Your task to perform on an android device: remove spam from my inbox in the gmail app Image 0: 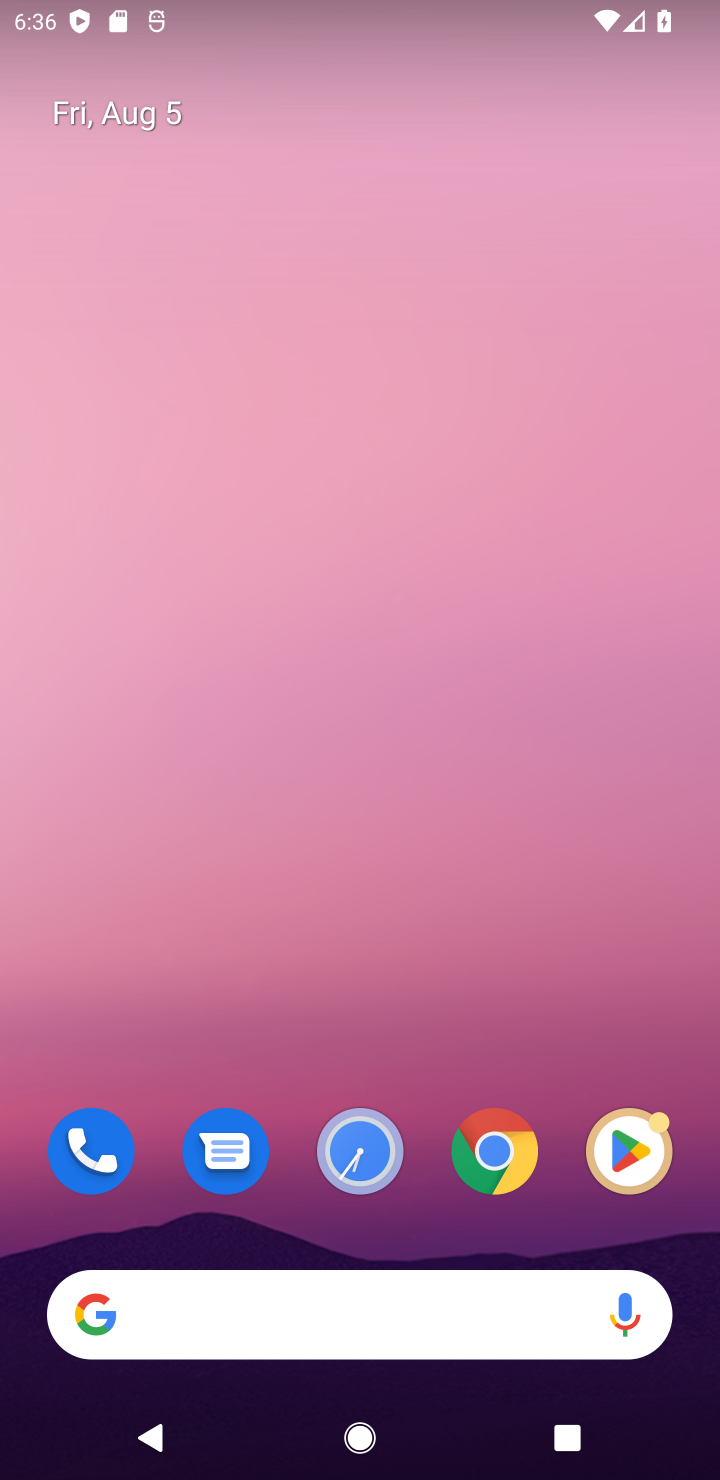
Step 0: drag from (408, 1075) to (371, 446)
Your task to perform on an android device: remove spam from my inbox in the gmail app Image 1: 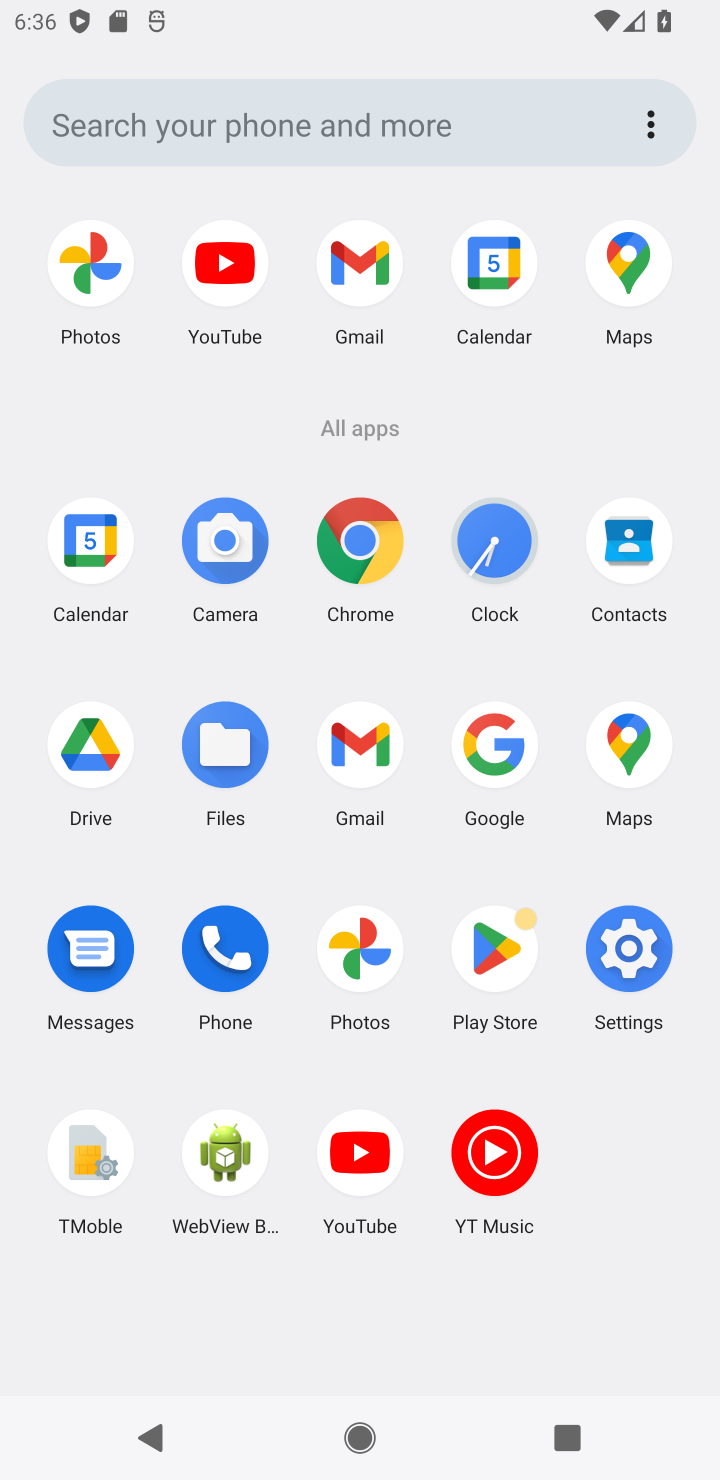
Step 1: click (365, 761)
Your task to perform on an android device: remove spam from my inbox in the gmail app Image 2: 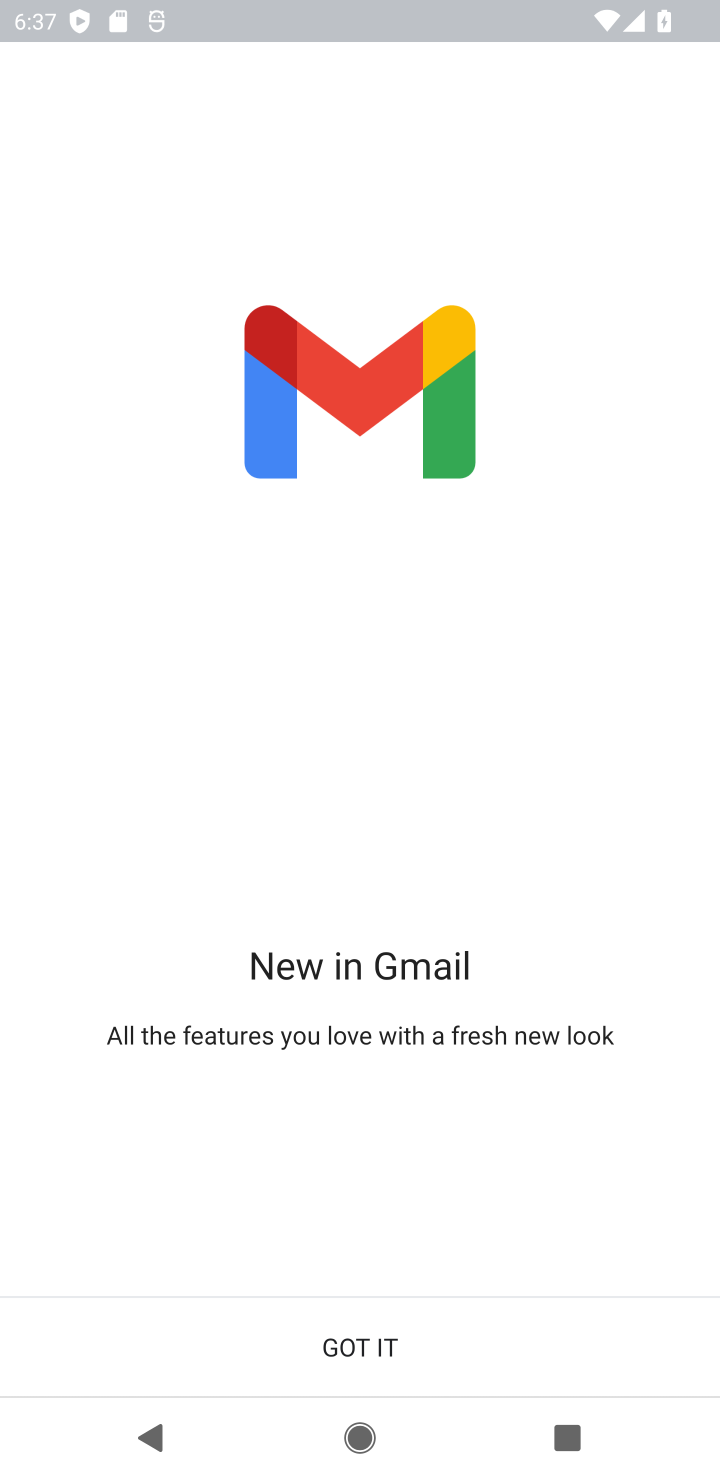
Step 2: click (460, 1360)
Your task to perform on an android device: remove spam from my inbox in the gmail app Image 3: 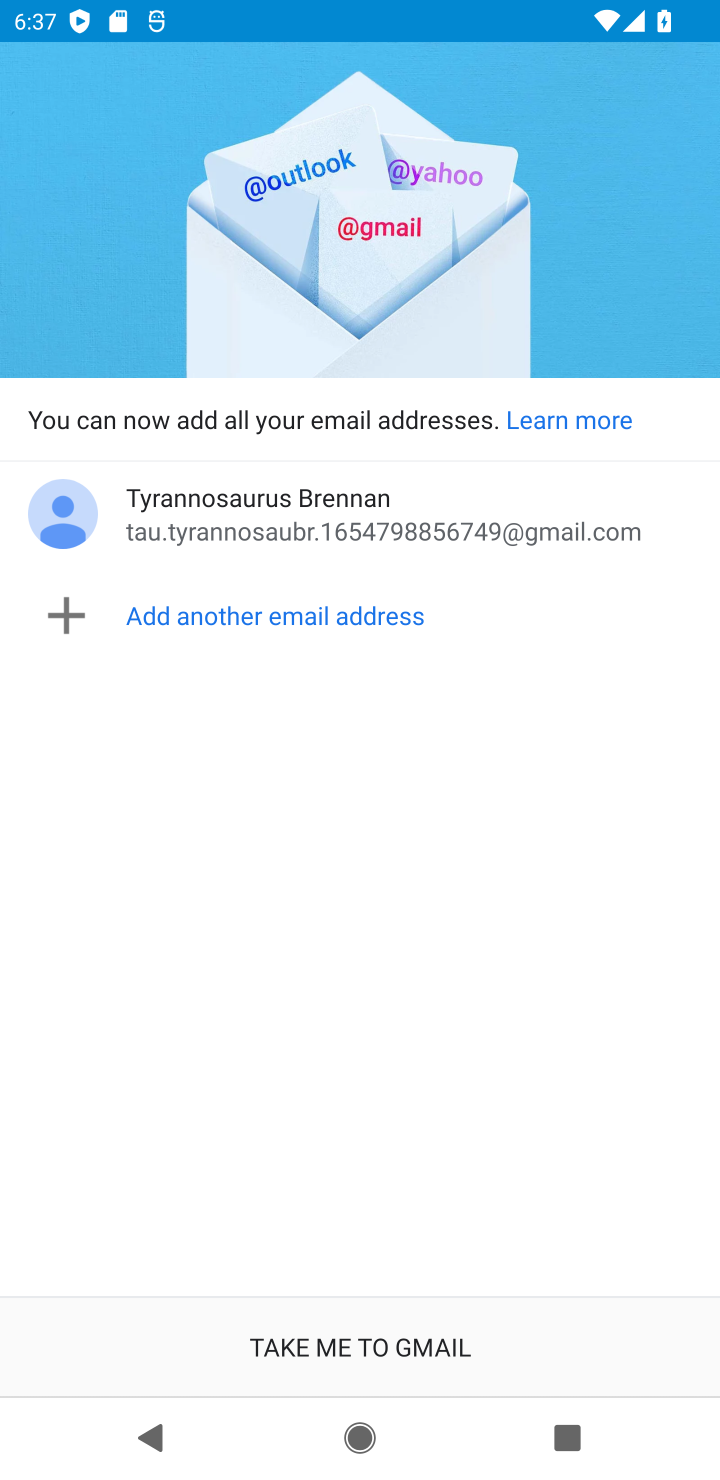
Step 3: click (460, 1360)
Your task to perform on an android device: remove spam from my inbox in the gmail app Image 4: 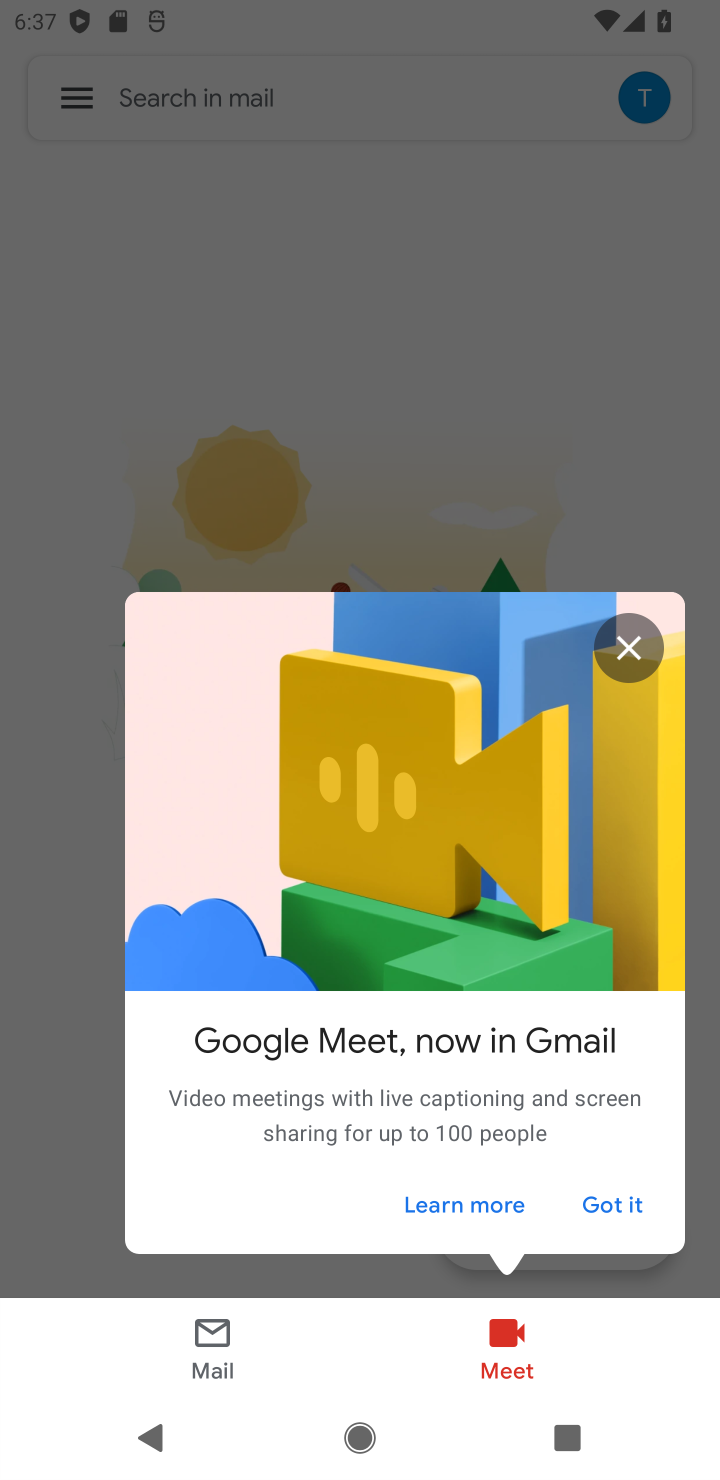
Step 4: click (635, 663)
Your task to perform on an android device: remove spam from my inbox in the gmail app Image 5: 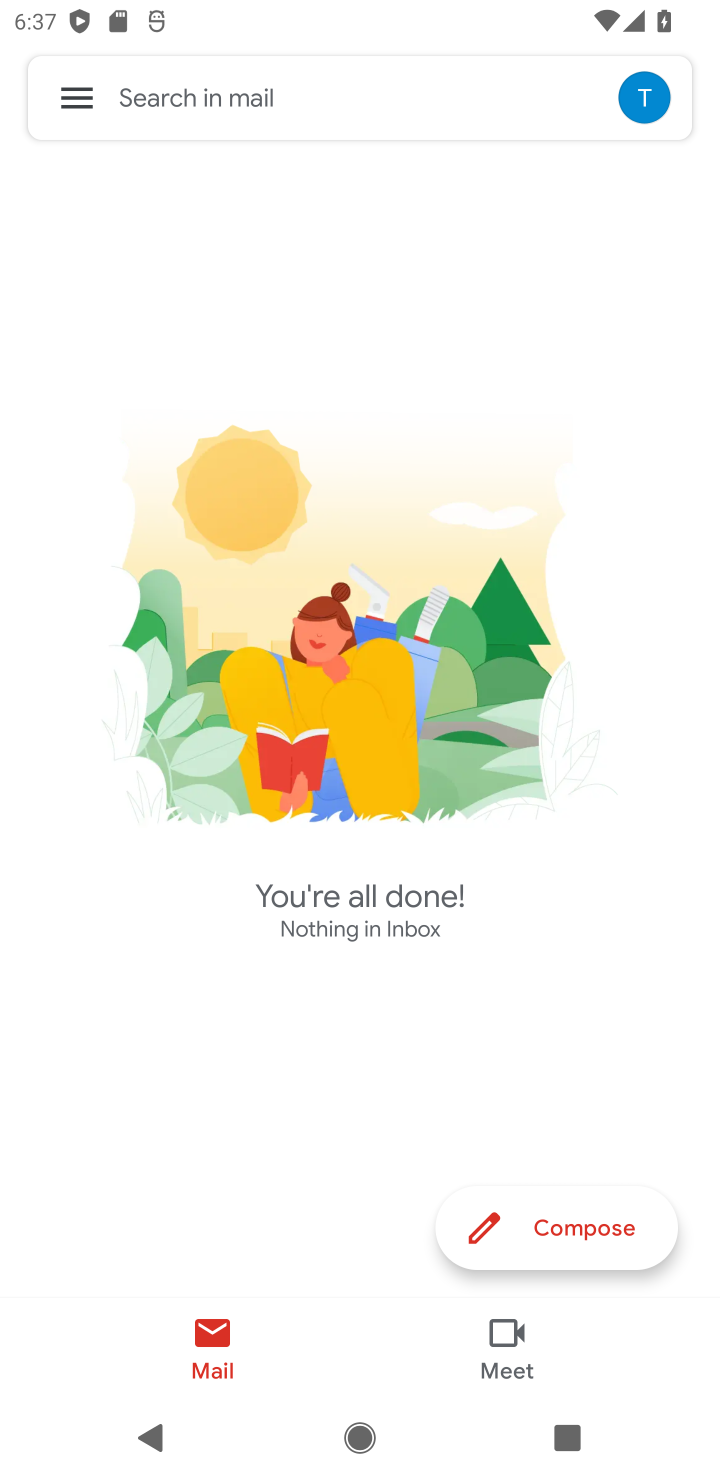
Step 5: click (72, 101)
Your task to perform on an android device: remove spam from my inbox in the gmail app Image 6: 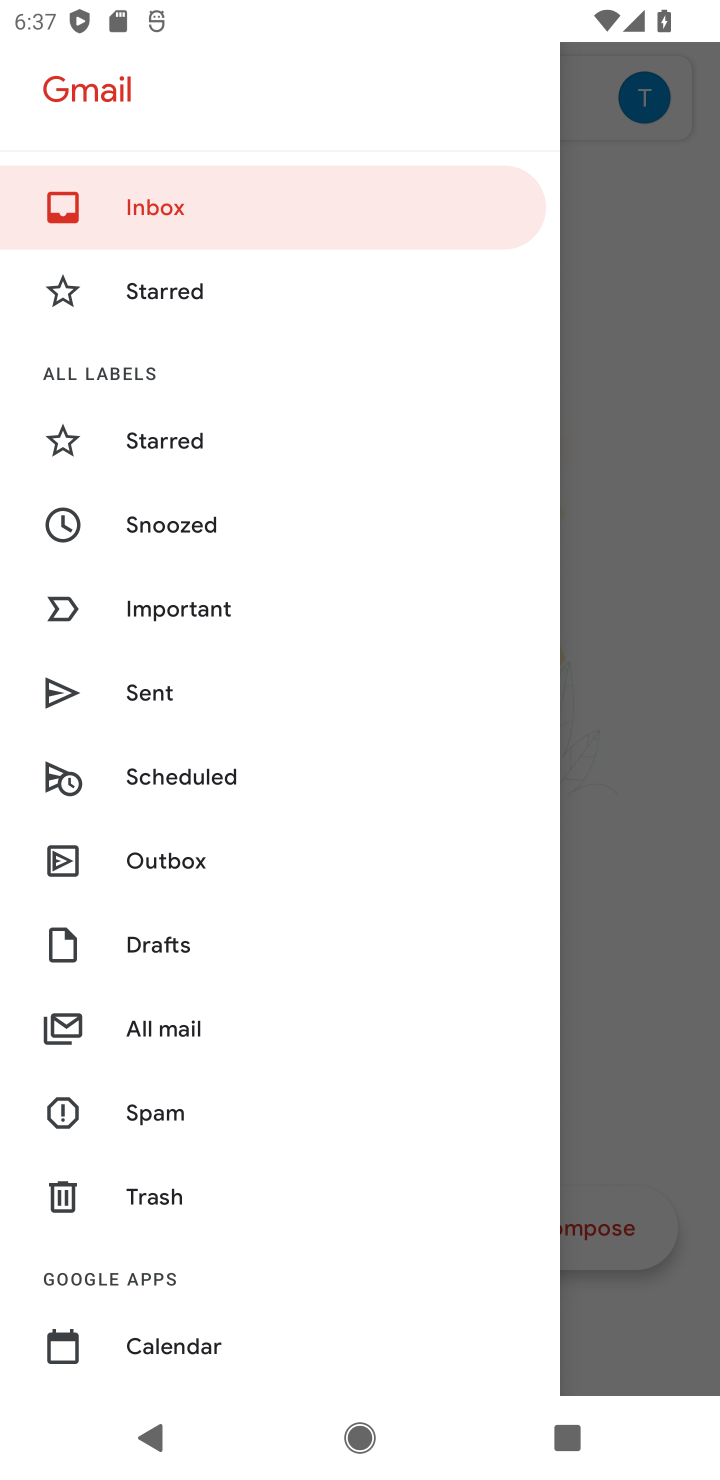
Step 6: click (157, 1116)
Your task to perform on an android device: remove spam from my inbox in the gmail app Image 7: 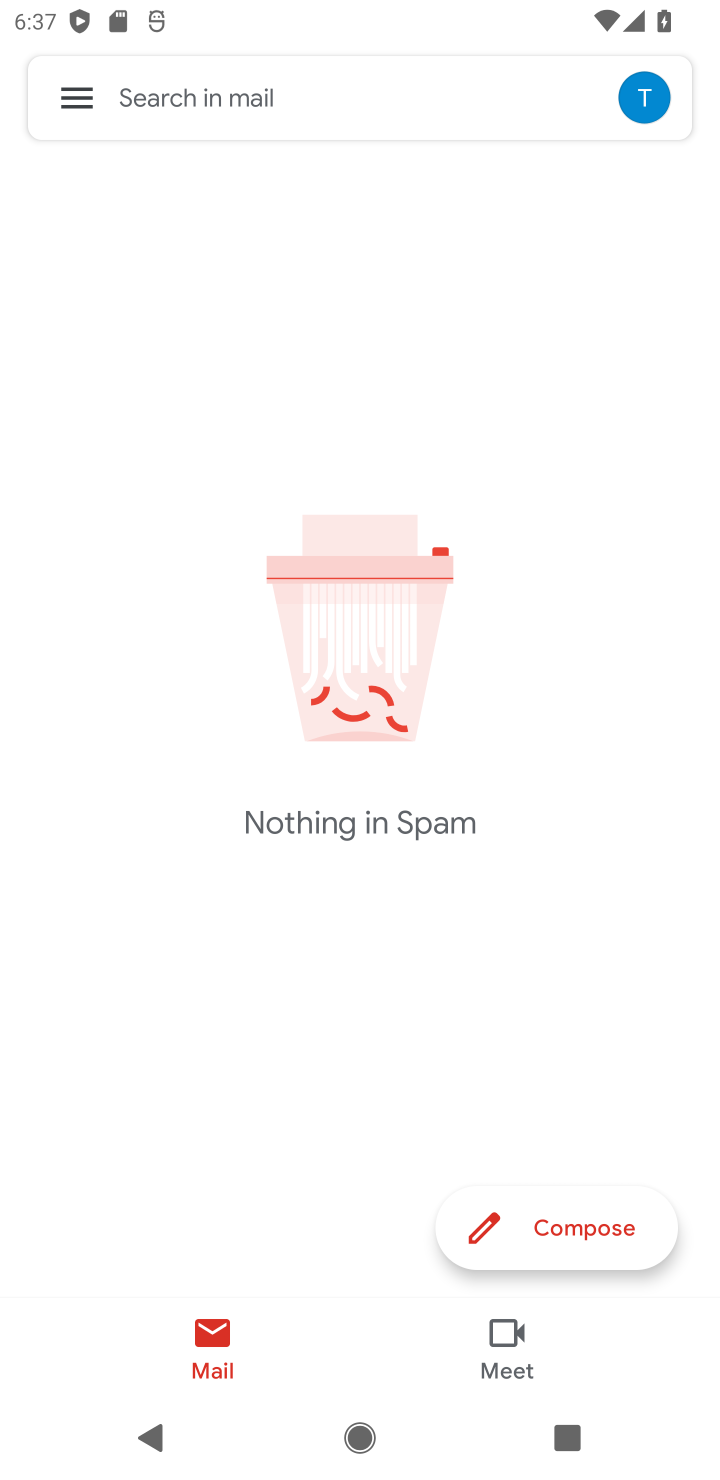
Step 7: task complete